Your task to perform on an android device: What's the weather? Image 0: 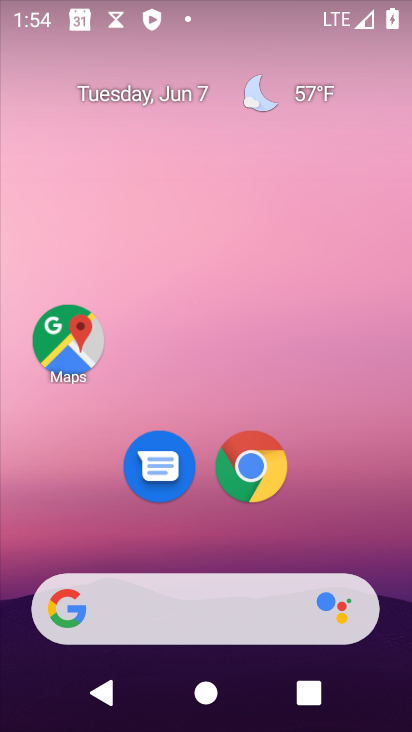
Step 0: click (253, 90)
Your task to perform on an android device: What's the weather? Image 1: 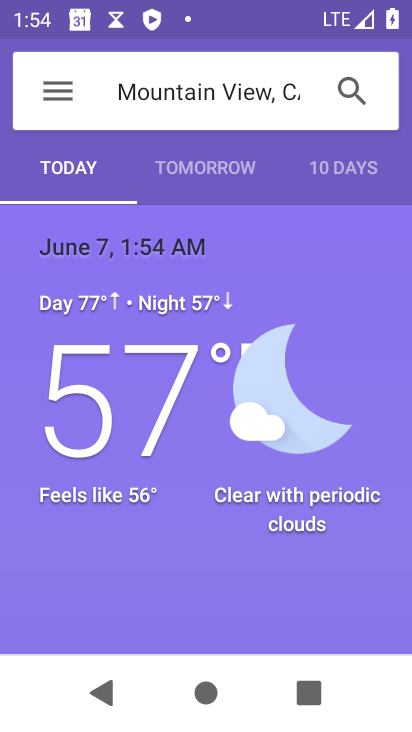
Step 1: task complete